Your task to perform on an android device: open app "Expedia: Hotels, Flights & Car" Image 0: 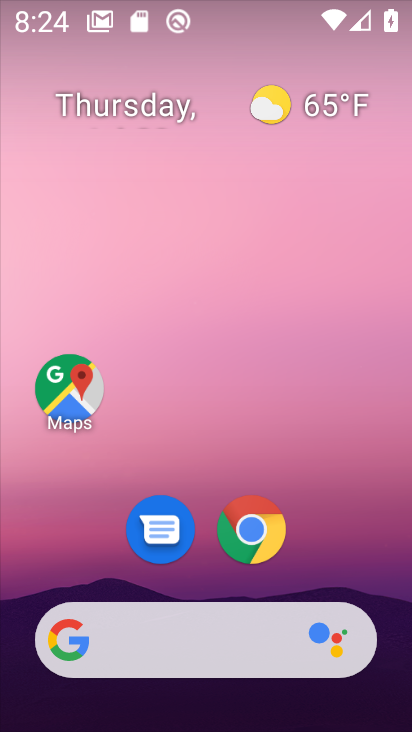
Step 0: drag from (206, 727) to (229, 65)
Your task to perform on an android device: open app "Expedia: Hotels, Flights & Car" Image 1: 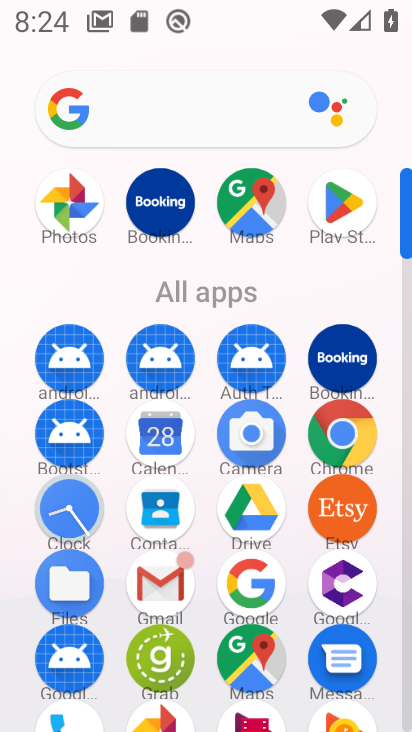
Step 1: click (343, 195)
Your task to perform on an android device: open app "Expedia: Hotels, Flights & Car" Image 2: 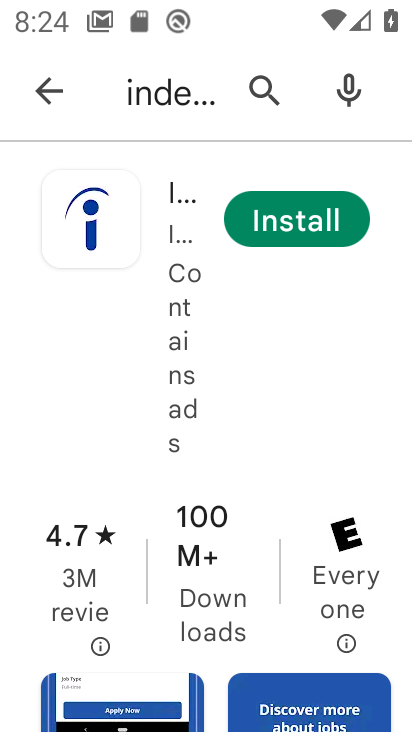
Step 2: click (258, 82)
Your task to perform on an android device: open app "Expedia: Hotels, Flights & Car" Image 3: 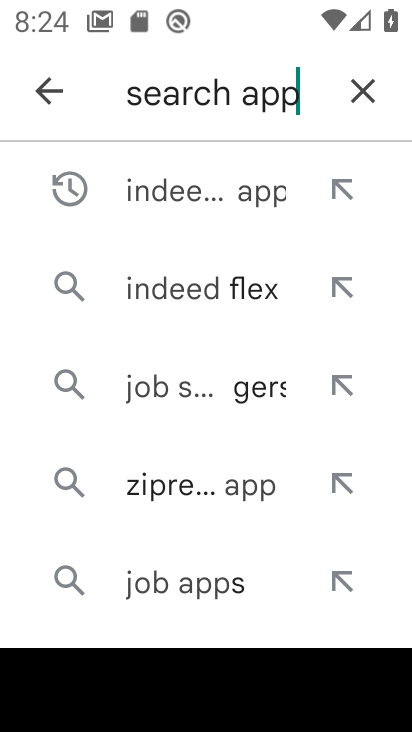
Step 3: click (357, 86)
Your task to perform on an android device: open app "Expedia: Hotels, Flights & Car" Image 4: 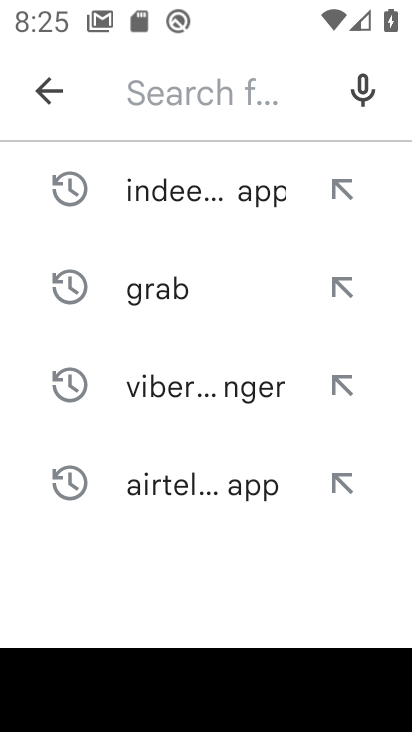
Step 4: type "Expedia: Hotels, Flights & Car"
Your task to perform on an android device: open app "Expedia: Hotels, Flights & Car" Image 5: 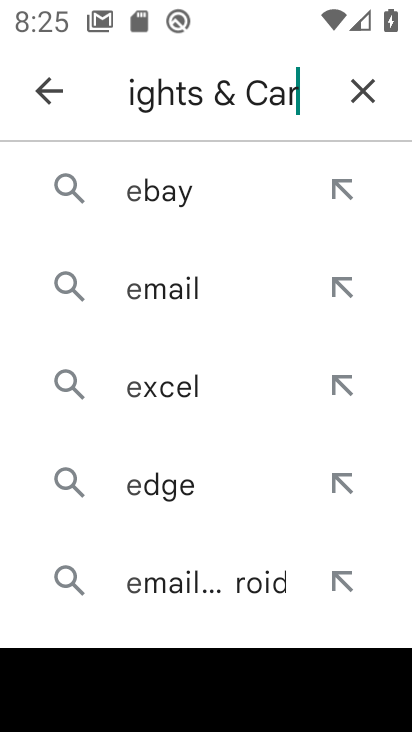
Step 5: type ""
Your task to perform on an android device: open app "Expedia: Hotels, Flights & Car" Image 6: 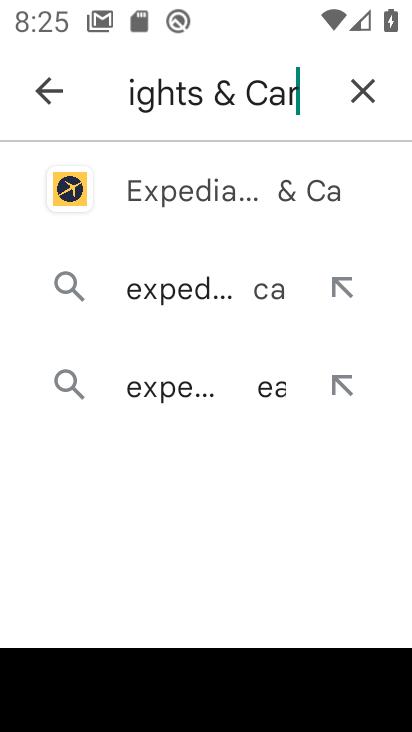
Step 6: click (146, 185)
Your task to perform on an android device: open app "Expedia: Hotels, Flights & Car" Image 7: 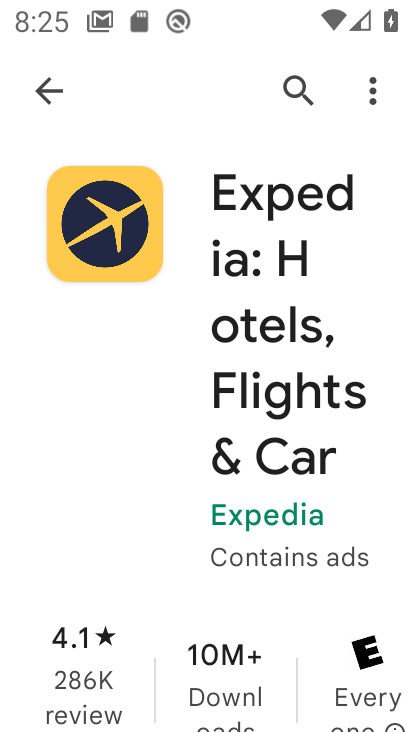
Step 7: task complete